Your task to perform on an android device: turn on sleep mode Image 0: 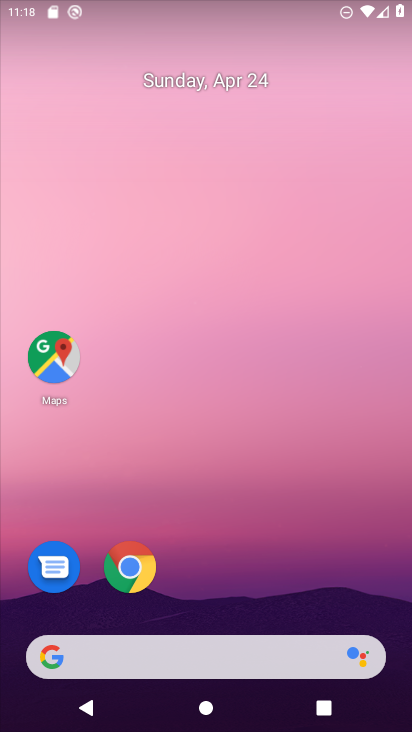
Step 0: drag from (408, 658) to (358, 111)
Your task to perform on an android device: turn on sleep mode Image 1: 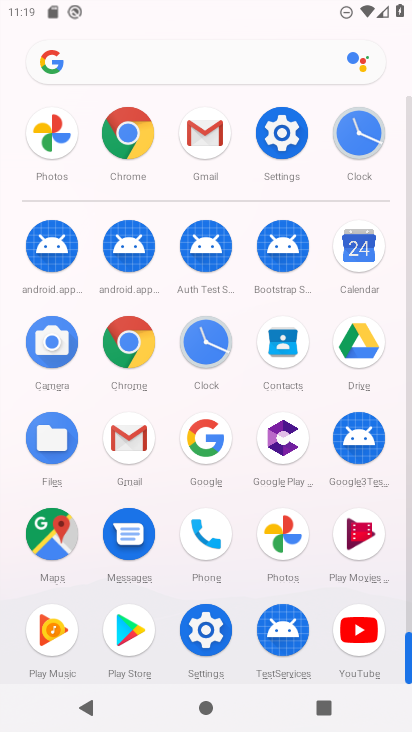
Step 1: task complete